Your task to perform on an android device: snooze an email in the gmail app Image 0: 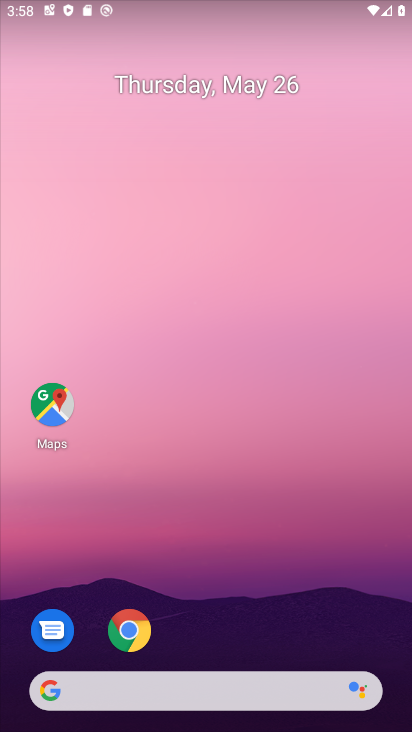
Step 0: drag from (266, 627) to (237, 268)
Your task to perform on an android device: snooze an email in the gmail app Image 1: 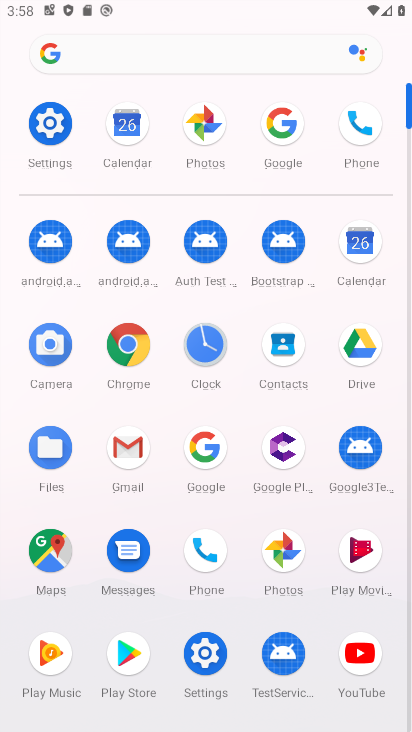
Step 1: drag from (241, 527) to (237, 362)
Your task to perform on an android device: snooze an email in the gmail app Image 2: 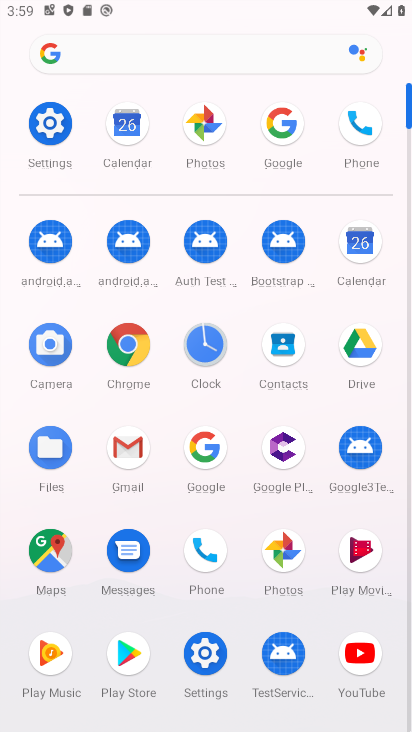
Step 2: click (125, 445)
Your task to perform on an android device: snooze an email in the gmail app Image 3: 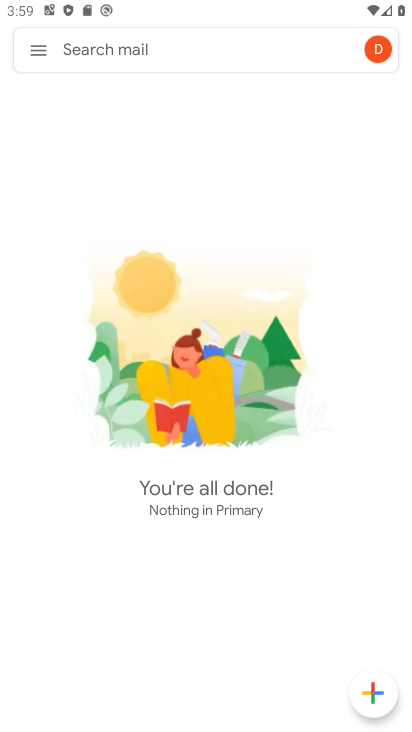
Step 3: click (35, 49)
Your task to perform on an android device: snooze an email in the gmail app Image 4: 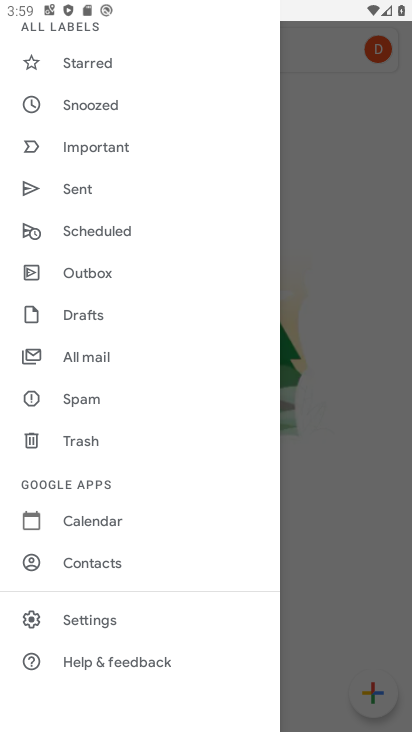
Step 4: drag from (106, 161) to (134, 228)
Your task to perform on an android device: snooze an email in the gmail app Image 5: 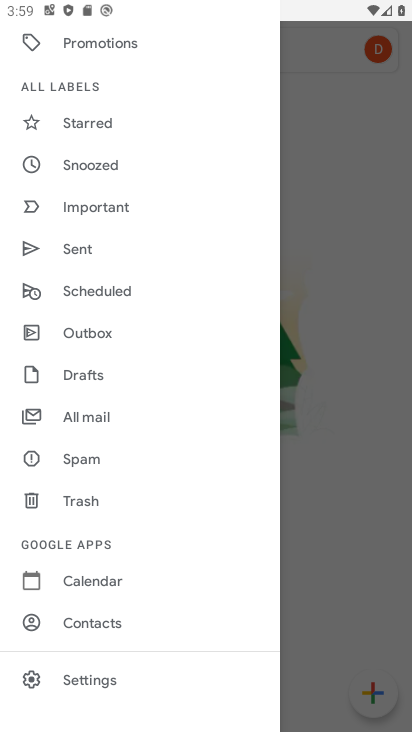
Step 5: drag from (111, 144) to (153, 241)
Your task to perform on an android device: snooze an email in the gmail app Image 6: 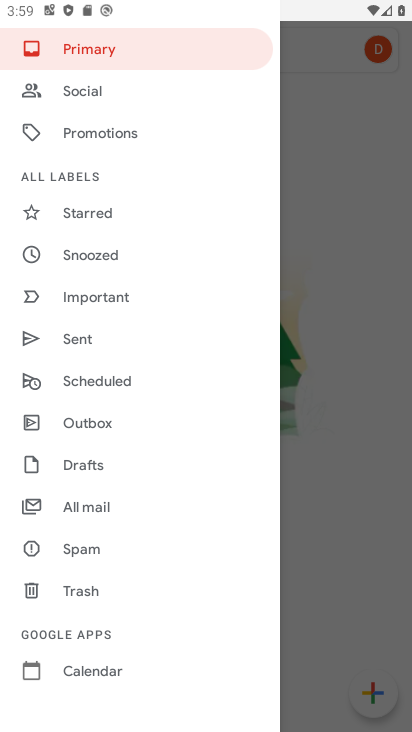
Step 6: click (101, 504)
Your task to perform on an android device: snooze an email in the gmail app Image 7: 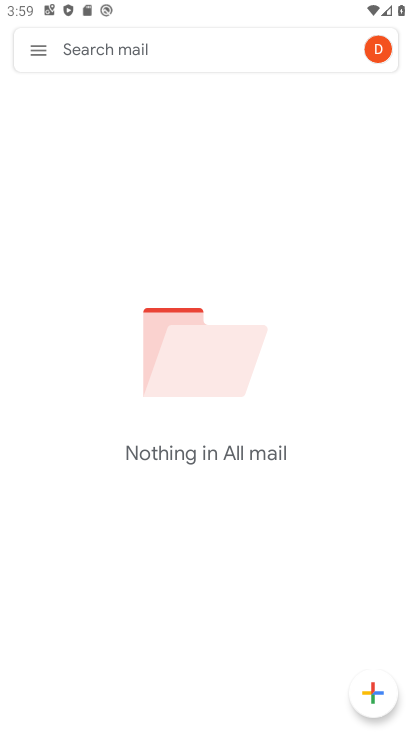
Step 7: click (43, 44)
Your task to perform on an android device: snooze an email in the gmail app Image 8: 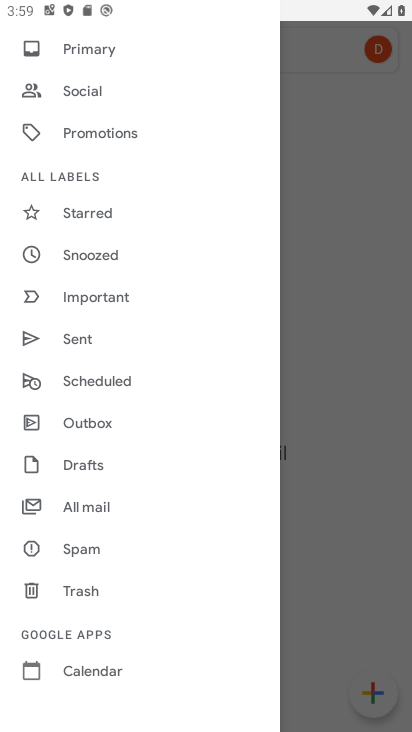
Step 8: drag from (86, 442) to (108, 373)
Your task to perform on an android device: snooze an email in the gmail app Image 9: 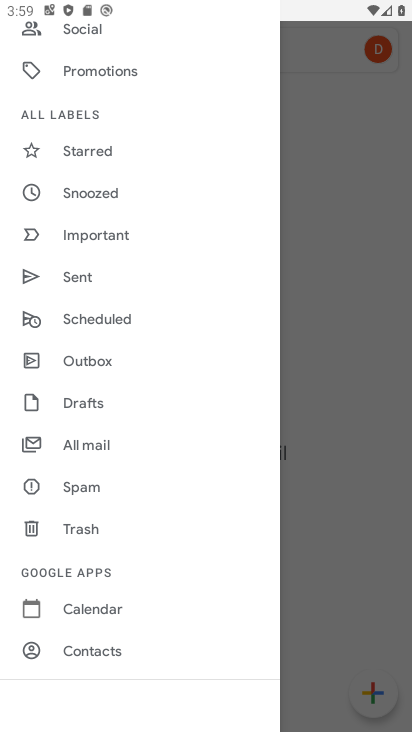
Step 9: drag from (110, 324) to (142, 416)
Your task to perform on an android device: snooze an email in the gmail app Image 10: 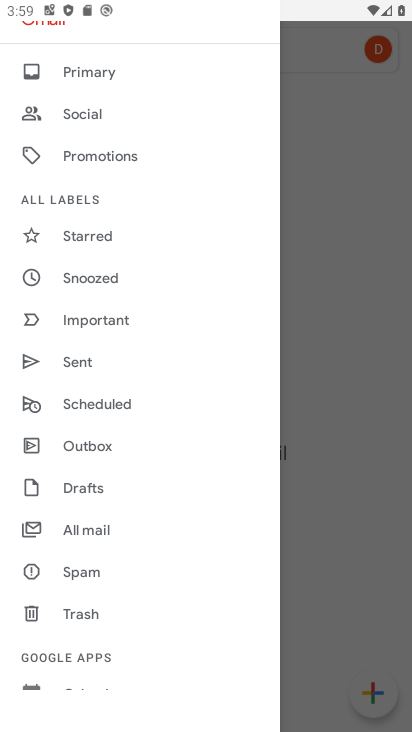
Step 10: click (113, 280)
Your task to perform on an android device: snooze an email in the gmail app Image 11: 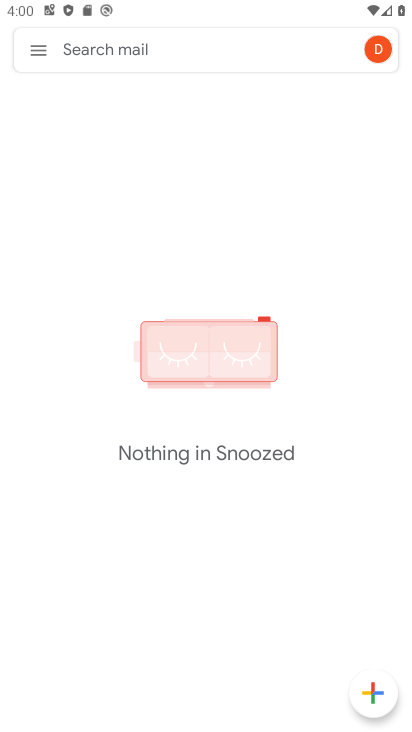
Step 11: task complete